Your task to perform on an android device: Open CNN.com Image 0: 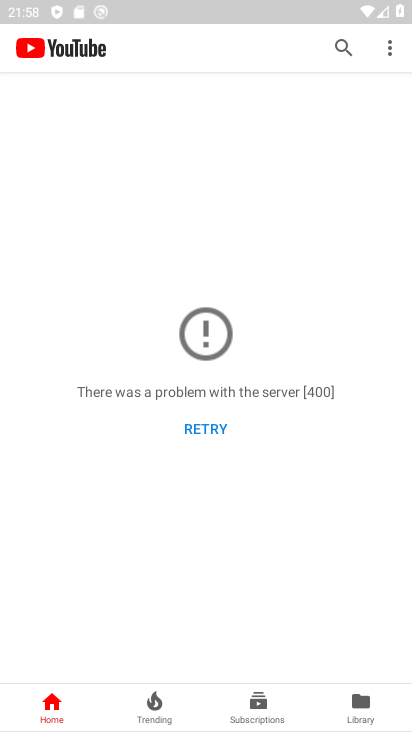
Step 0: press home button
Your task to perform on an android device: Open CNN.com Image 1: 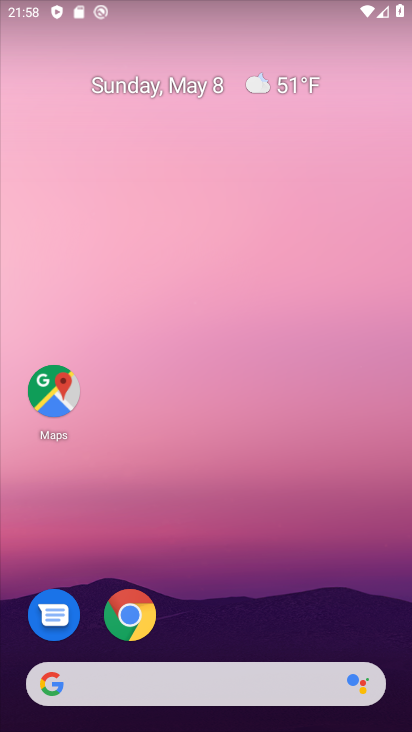
Step 1: click (133, 615)
Your task to perform on an android device: Open CNN.com Image 2: 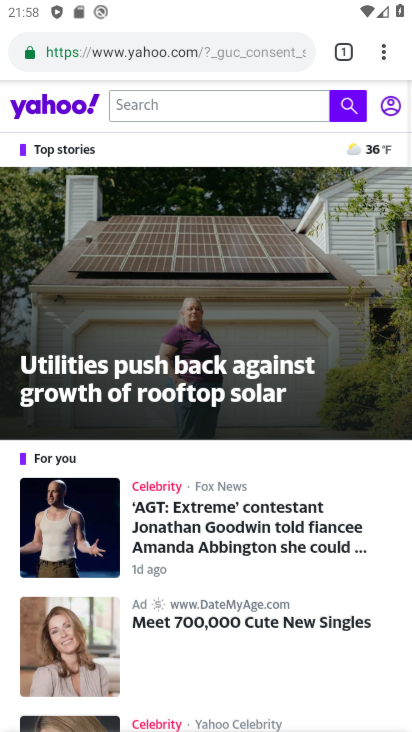
Step 2: click (220, 56)
Your task to perform on an android device: Open CNN.com Image 3: 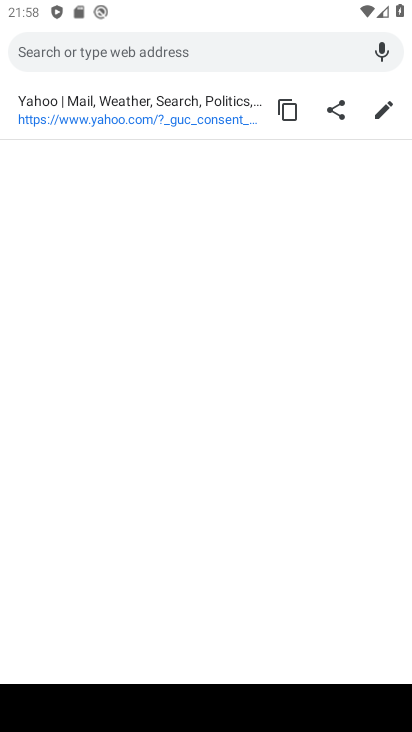
Step 3: type "cnn"
Your task to perform on an android device: Open CNN.com Image 4: 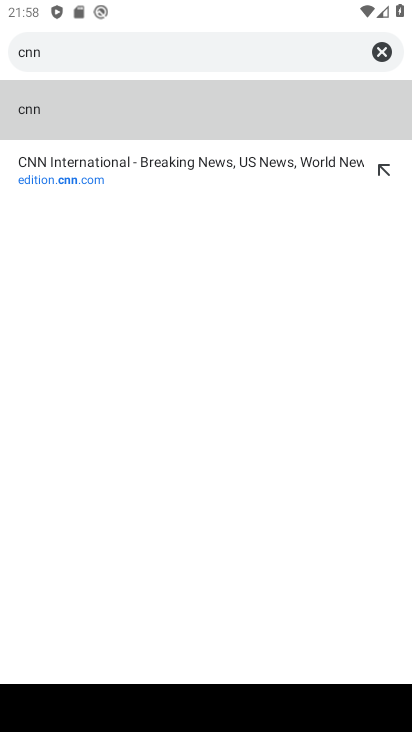
Step 4: click (154, 158)
Your task to perform on an android device: Open CNN.com Image 5: 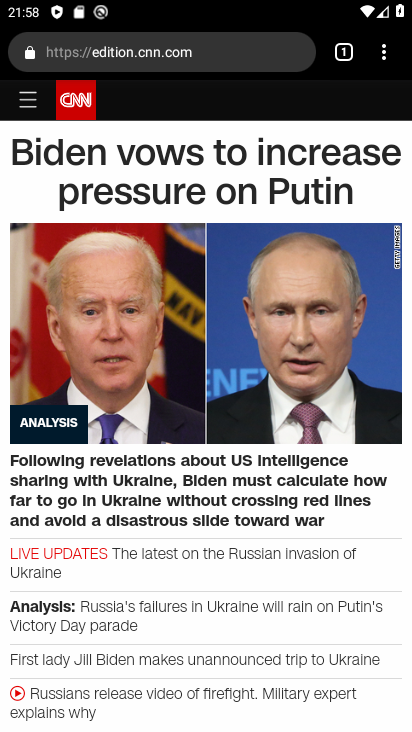
Step 5: task complete